Your task to perform on an android device: Open Google Chrome Image 0: 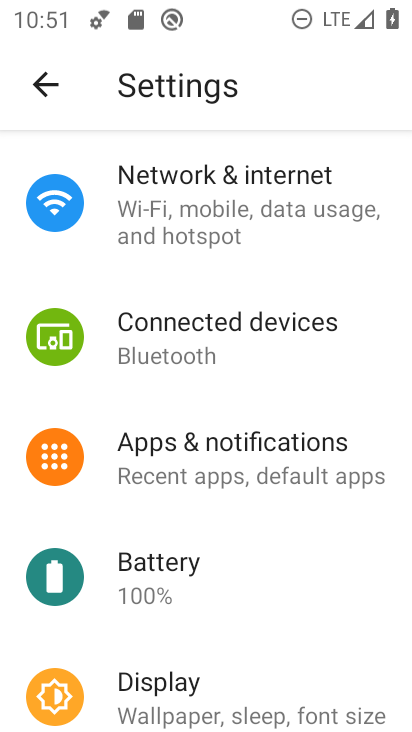
Step 0: press back button
Your task to perform on an android device: Open Google Chrome Image 1: 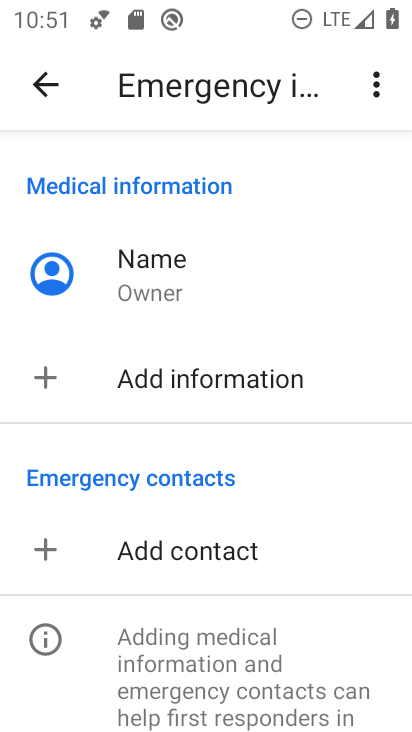
Step 1: press back button
Your task to perform on an android device: Open Google Chrome Image 2: 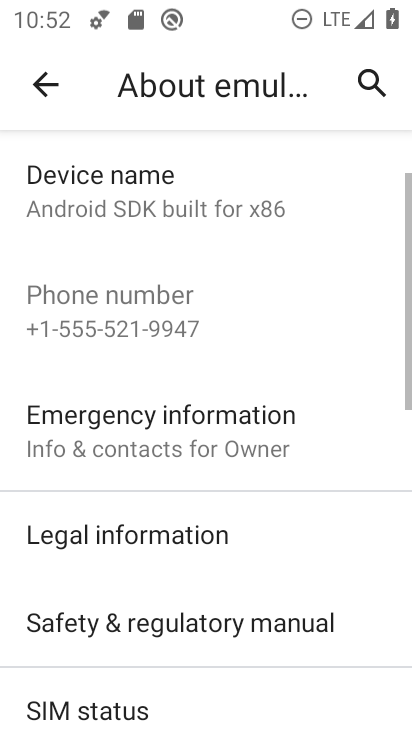
Step 2: press back button
Your task to perform on an android device: Open Google Chrome Image 3: 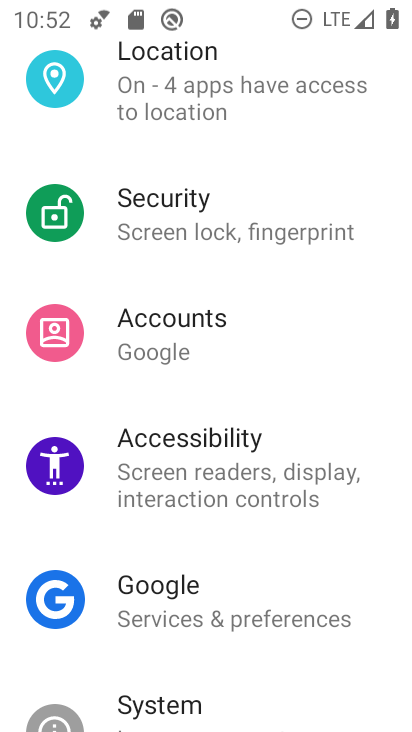
Step 3: press back button
Your task to perform on an android device: Open Google Chrome Image 4: 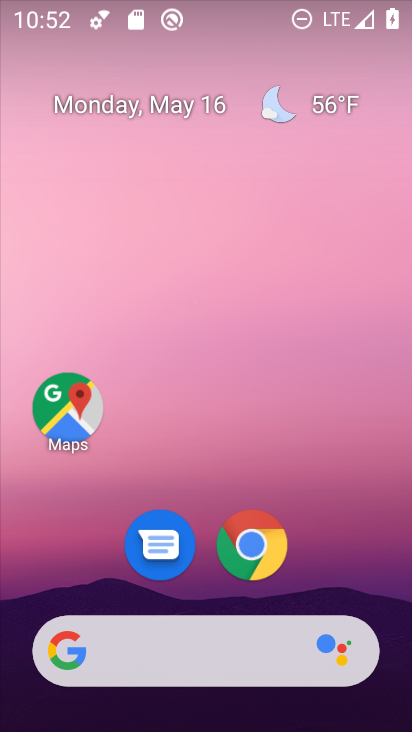
Step 4: click (254, 544)
Your task to perform on an android device: Open Google Chrome Image 5: 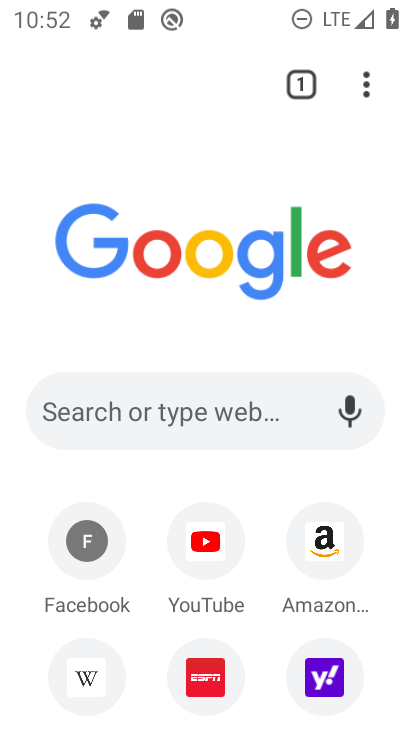
Step 5: task complete